Your task to perform on an android device: Do I have any events today? Image 0: 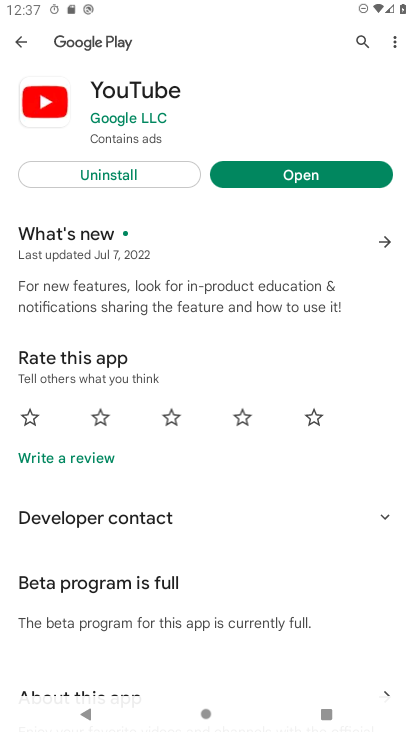
Step 0: press home button
Your task to perform on an android device: Do I have any events today? Image 1: 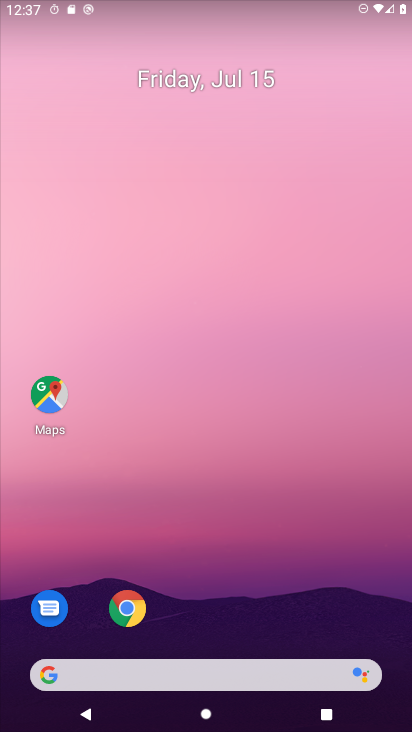
Step 1: drag from (165, 483) to (166, 79)
Your task to perform on an android device: Do I have any events today? Image 2: 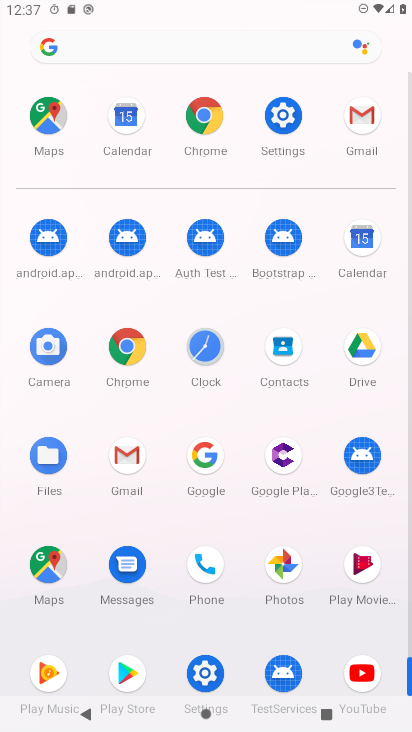
Step 2: click (366, 233)
Your task to perform on an android device: Do I have any events today? Image 3: 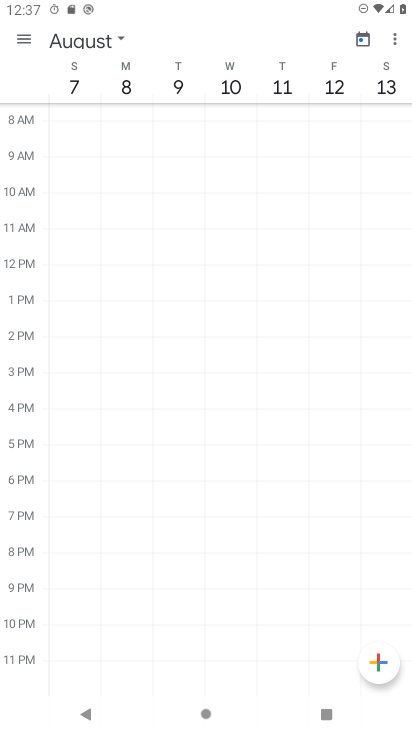
Step 3: click (123, 41)
Your task to perform on an android device: Do I have any events today? Image 4: 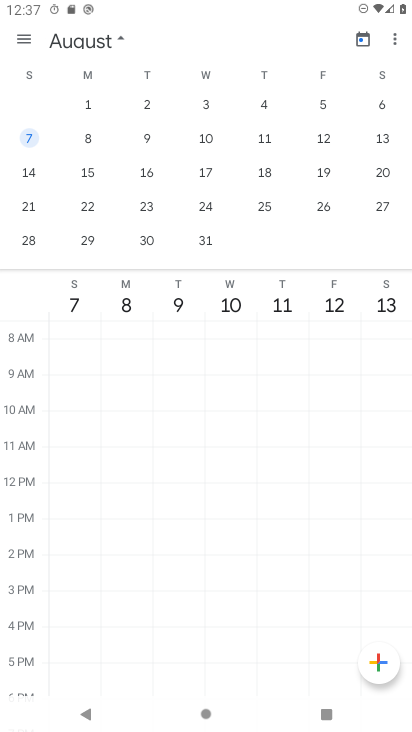
Step 4: drag from (51, 149) to (410, 215)
Your task to perform on an android device: Do I have any events today? Image 5: 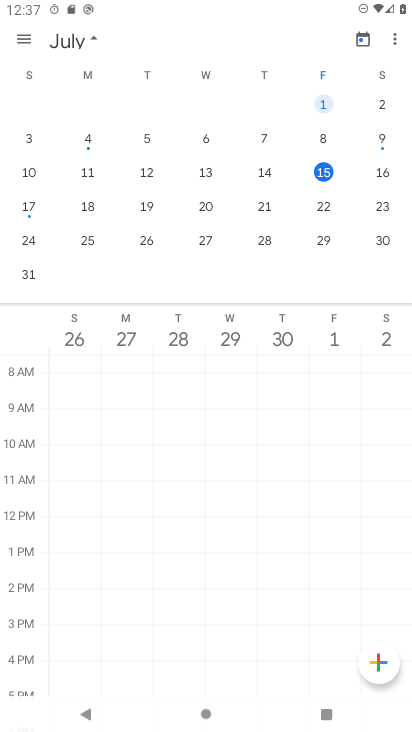
Step 5: click (325, 173)
Your task to perform on an android device: Do I have any events today? Image 6: 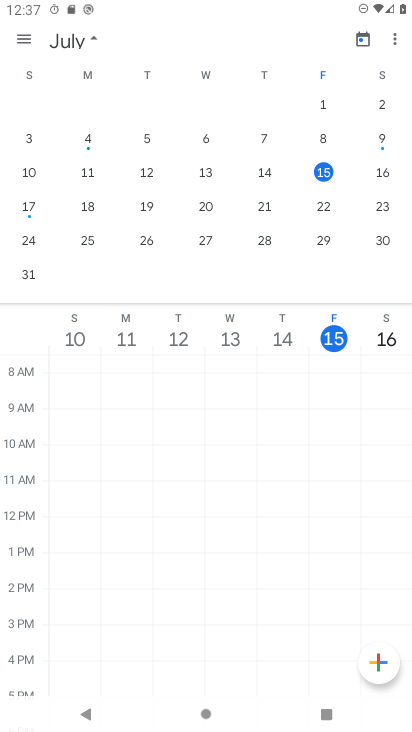
Step 6: task complete